Your task to perform on an android device: check storage Image 0: 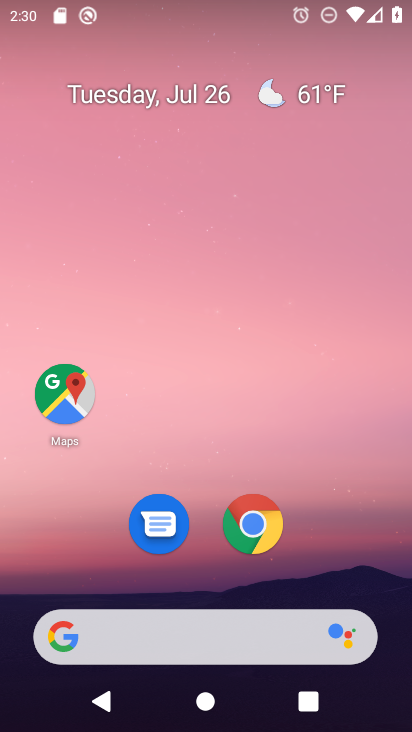
Step 0: press home button
Your task to perform on an android device: check storage Image 1: 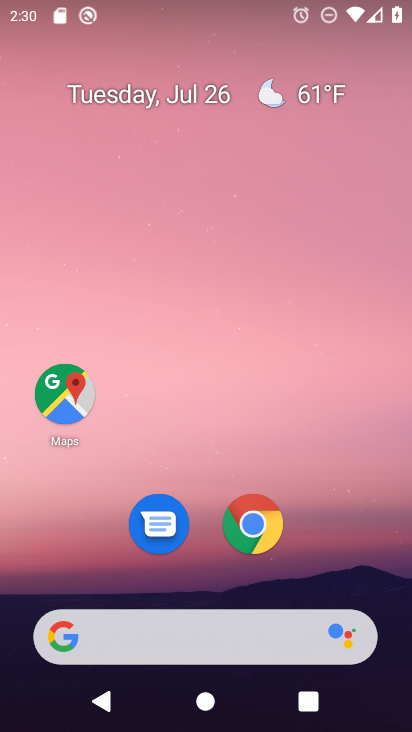
Step 1: drag from (150, 642) to (295, 59)
Your task to perform on an android device: check storage Image 2: 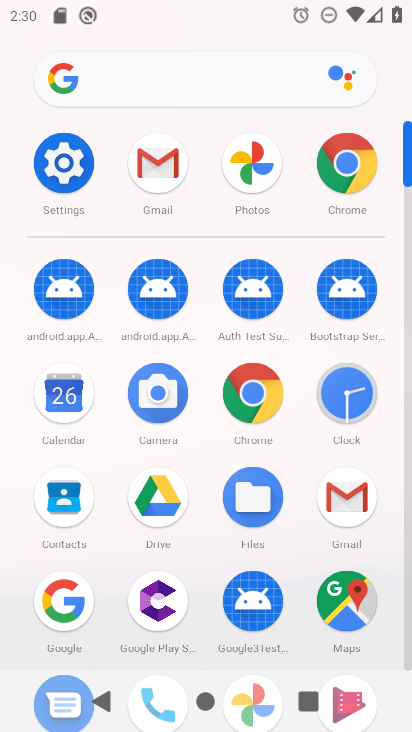
Step 2: click (65, 158)
Your task to perform on an android device: check storage Image 3: 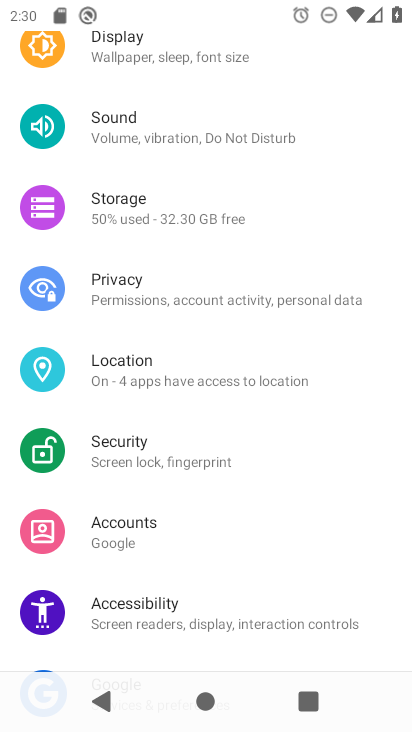
Step 3: click (116, 205)
Your task to perform on an android device: check storage Image 4: 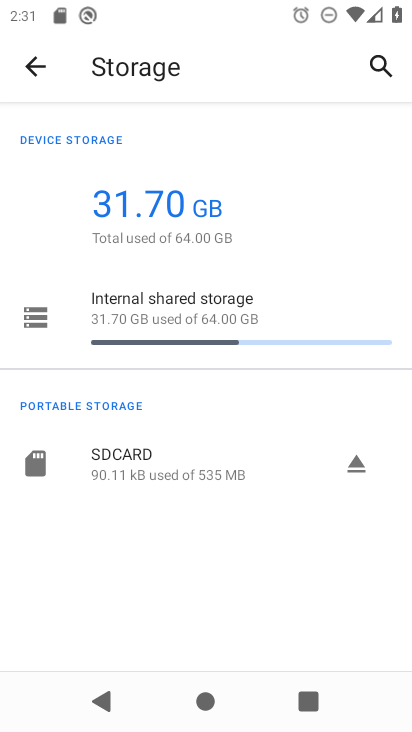
Step 4: task complete